Your task to perform on an android device: change the clock style Image 0: 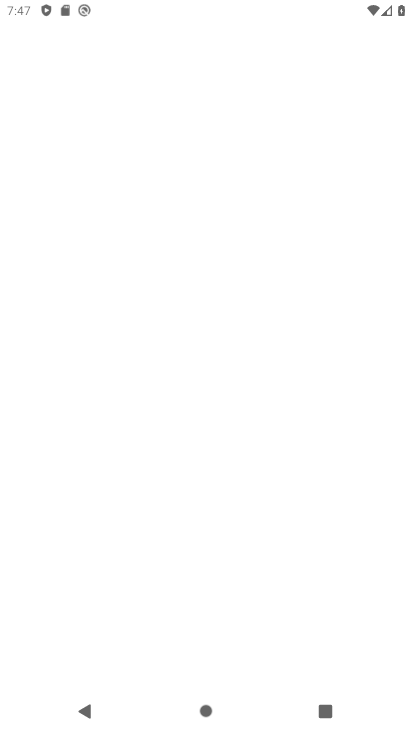
Step 0: drag from (175, 616) to (232, 195)
Your task to perform on an android device: change the clock style Image 1: 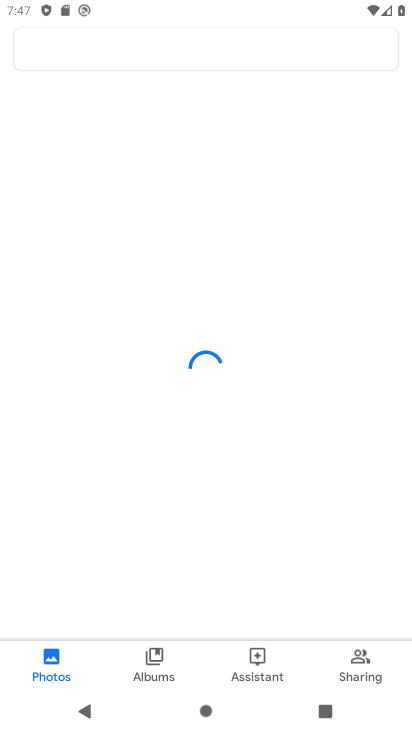
Step 1: press home button
Your task to perform on an android device: change the clock style Image 2: 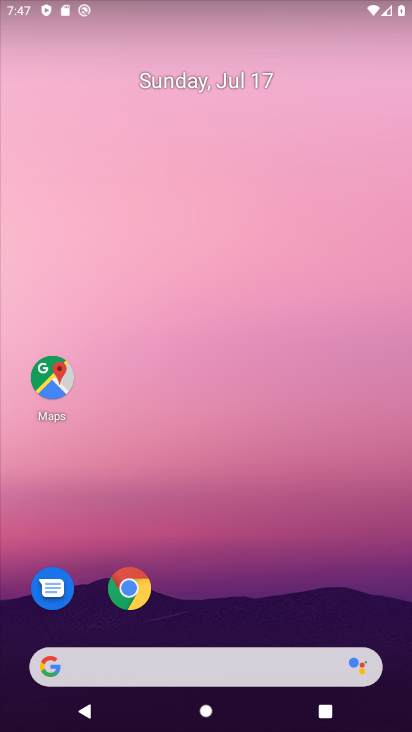
Step 2: drag from (208, 607) to (235, 55)
Your task to perform on an android device: change the clock style Image 3: 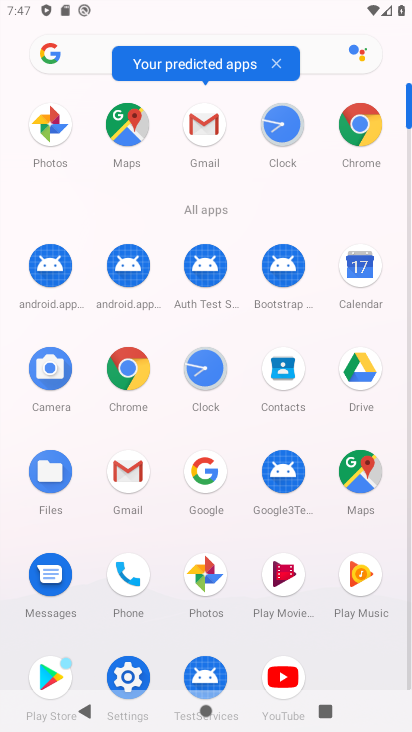
Step 3: click (284, 131)
Your task to perform on an android device: change the clock style Image 4: 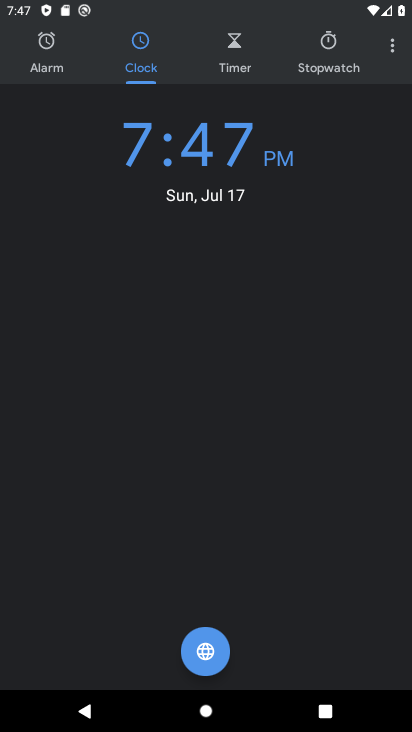
Step 4: click (394, 45)
Your task to perform on an android device: change the clock style Image 5: 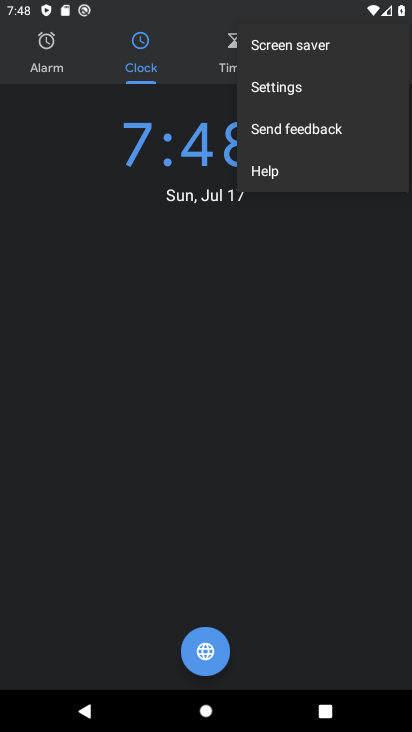
Step 5: click (277, 95)
Your task to perform on an android device: change the clock style Image 6: 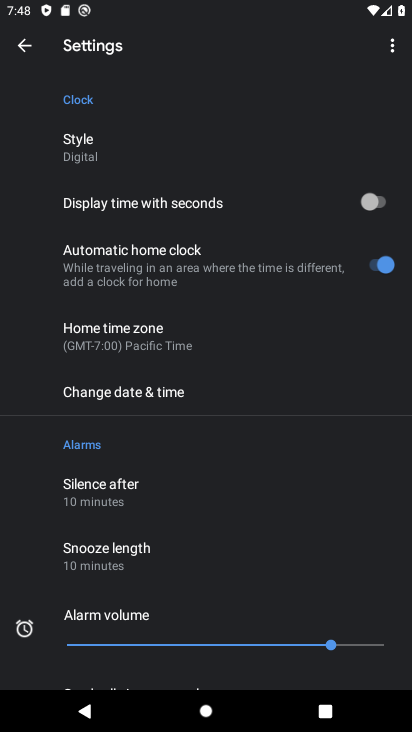
Step 6: click (112, 143)
Your task to perform on an android device: change the clock style Image 7: 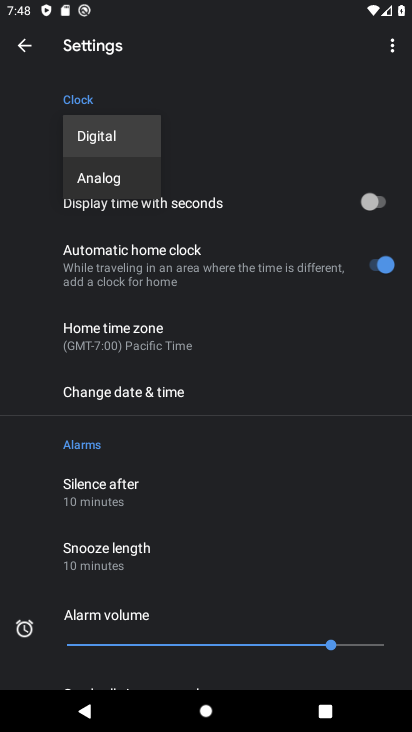
Step 7: click (114, 172)
Your task to perform on an android device: change the clock style Image 8: 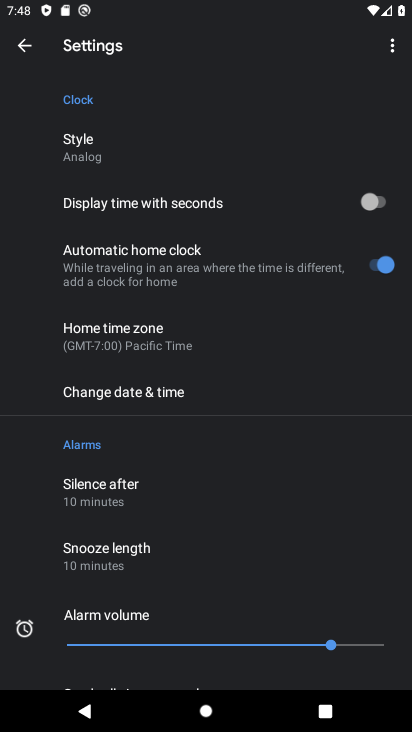
Step 8: task complete